Your task to perform on an android device: What is the speed of a tiger? Image 0: 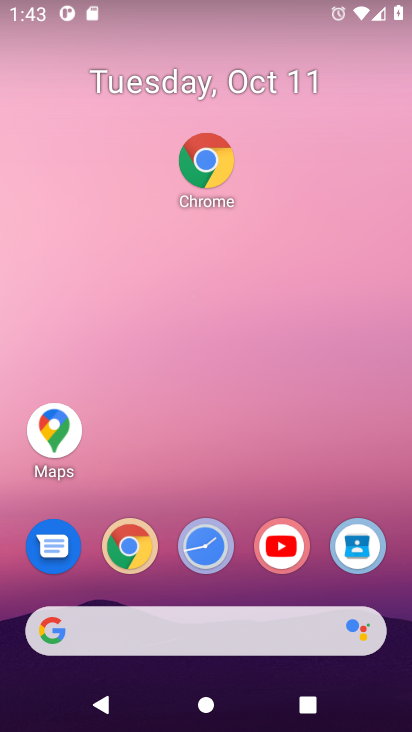
Step 0: click (213, 160)
Your task to perform on an android device: What is the speed of a tiger? Image 1: 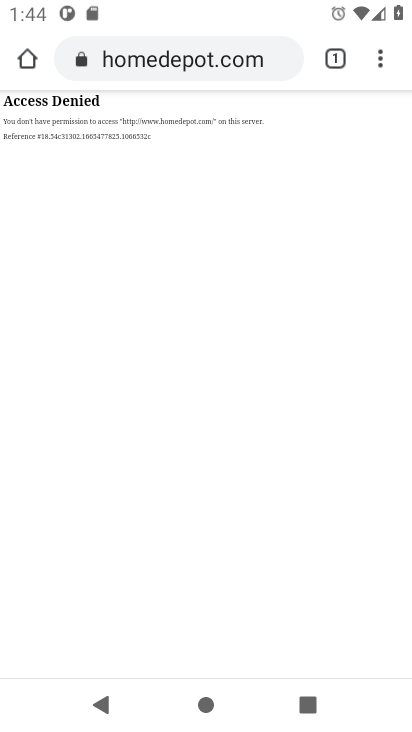
Step 1: click (336, 61)
Your task to perform on an android device: What is the speed of a tiger? Image 2: 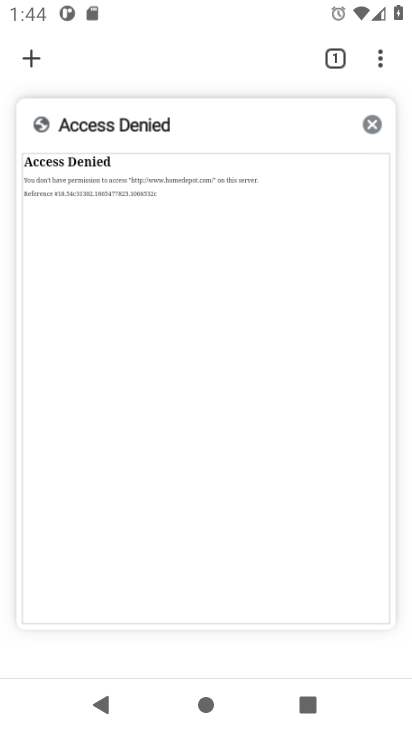
Step 2: click (374, 125)
Your task to perform on an android device: What is the speed of a tiger? Image 3: 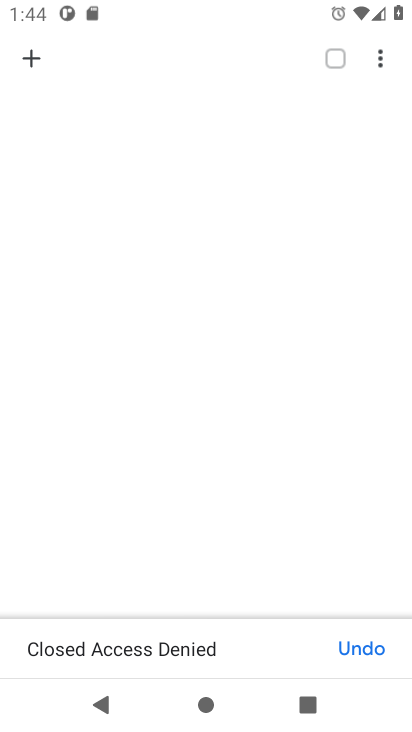
Step 3: click (24, 51)
Your task to perform on an android device: What is the speed of a tiger? Image 4: 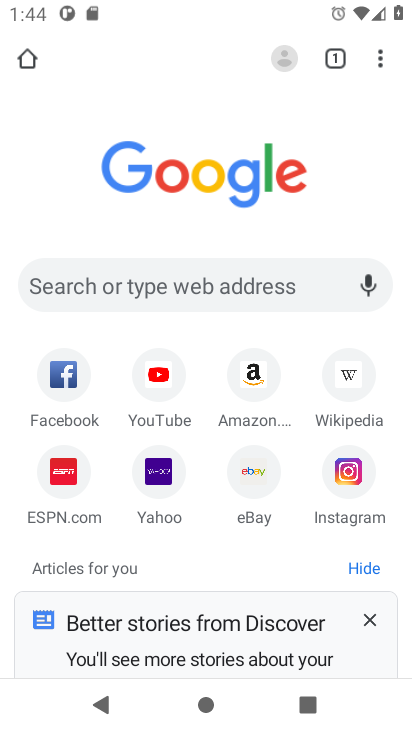
Step 4: click (229, 291)
Your task to perform on an android device: What is the speed of a tiger? Image 5: 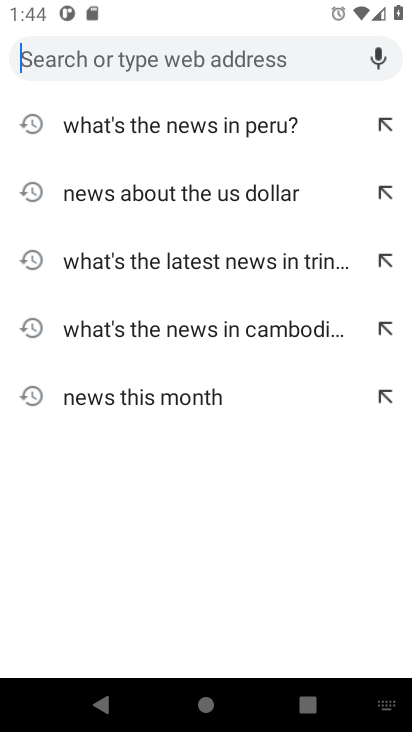
Step 5: type "speed of a tiger"
Your task to perform on an android device: What is the speed of a tiger? Image 6: 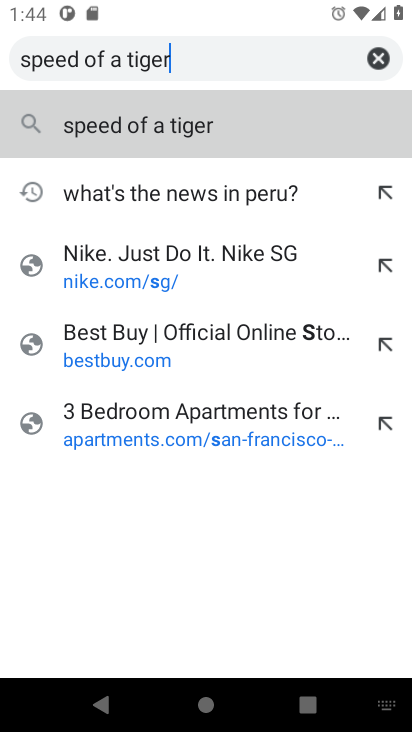
Step 6: type ""
Your task to perform on an android device: What is the speed of a tiger? Image 7: 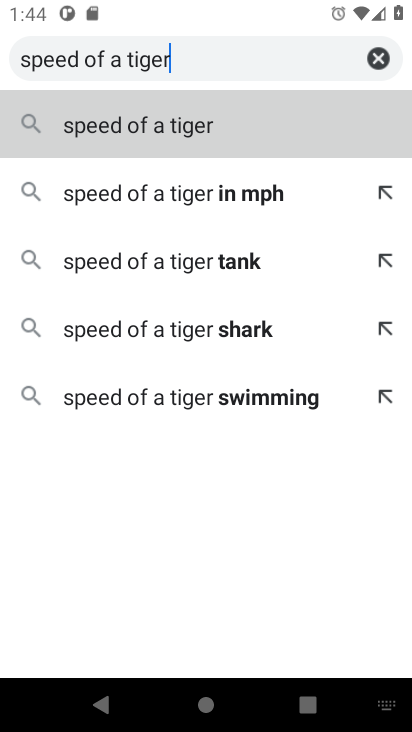
Step 7: press enter
Your task to perform on an android device: What is the speed of a tiger? Image 8: 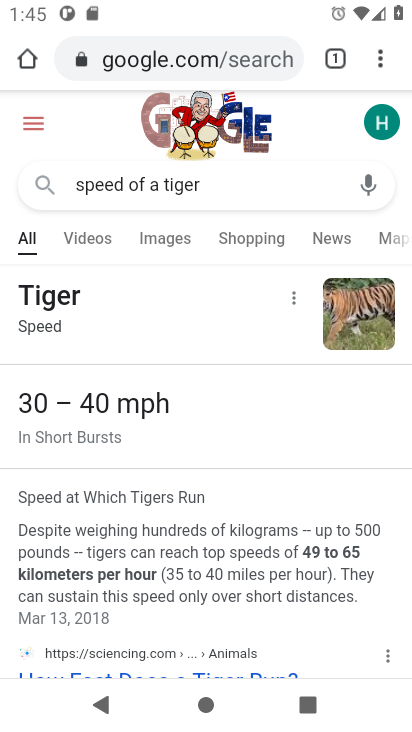
Step 8: task complete